Your task to perform on an android device: turn off improve location accuracy Image 0: 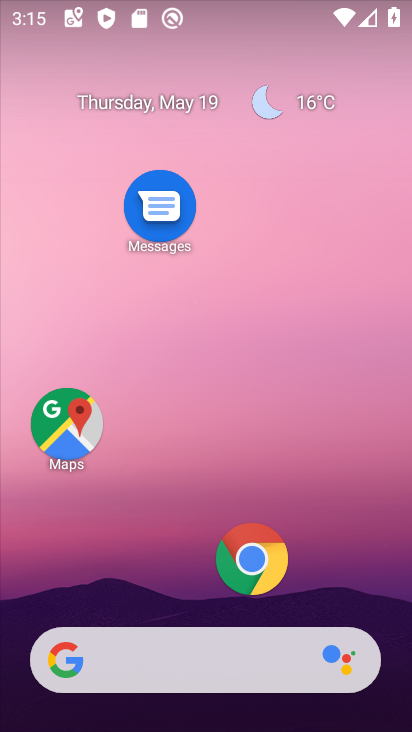
Step 0: drag from (205, 615) to (215, 250)
Your task to perform on an android device: turn off improve location accuracy Image 1: 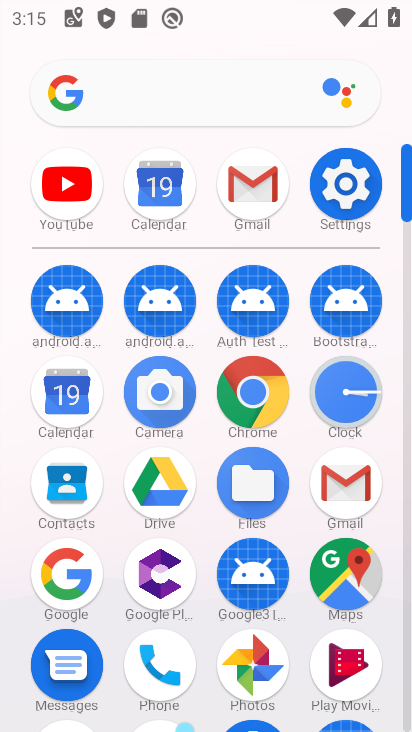
Step 1: click (322, 206)
Your task to perform on an android device: turn off improve location accuracy Image 2: 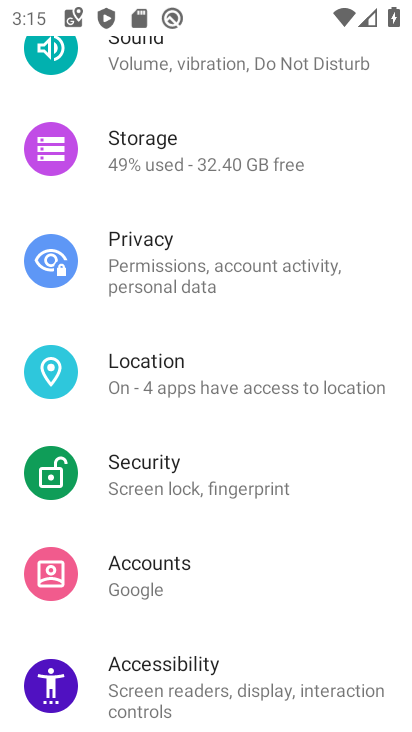
Step 2: click (195, 394)
Your task to perform on an android device: turn off improve location accuracy Image 3: 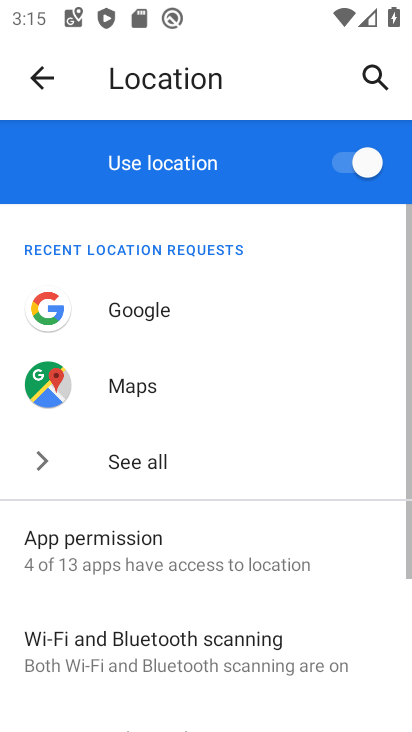
Step 3: drag from (191, 602) to (233, 393)
Your task to perform on an android device: turn off improve location accuracy Image 4: 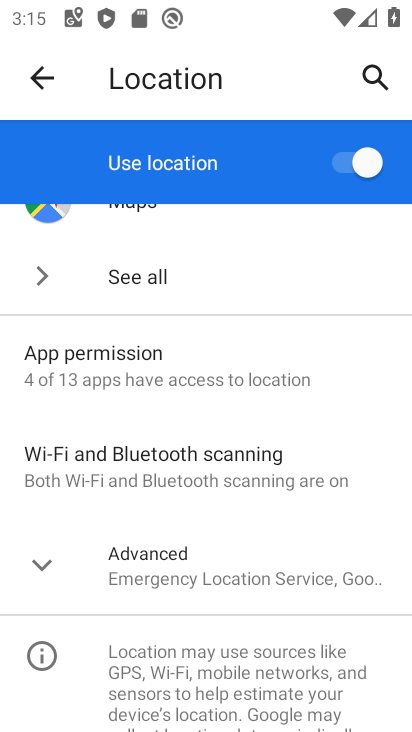
Step 4: click (158, 564)
Your task to perform on an android device: turn off improve location accuracy Image 5: 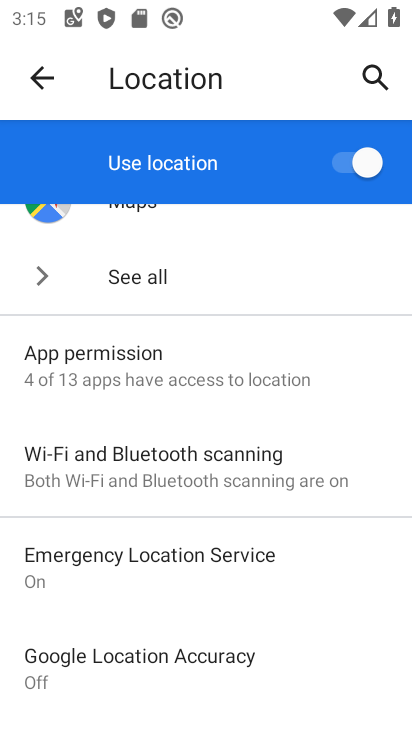
Step 5: drag from (190, 654) to (208, 434)
Your task to perform on an android device: turn off improve location accuracy Image 6: 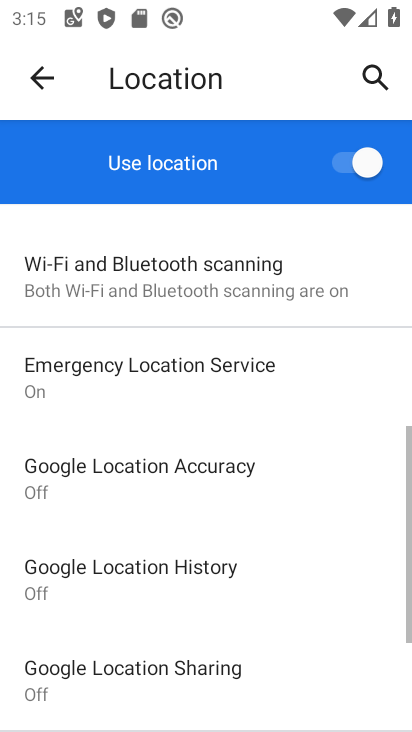
Step 6: drag from (189, 624) to (213, 453)
Your task to perform on an android device: turn off improve location accuracy Image 7: 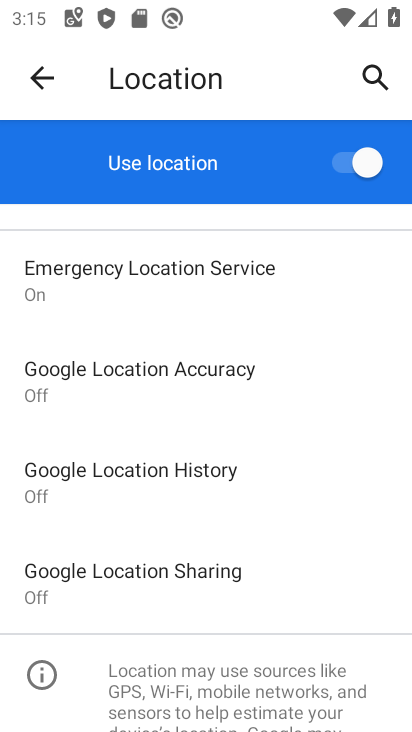
Step 7: click (188, 391)
Your task to perform on an android device: turn off improve location accuracy Image 8: 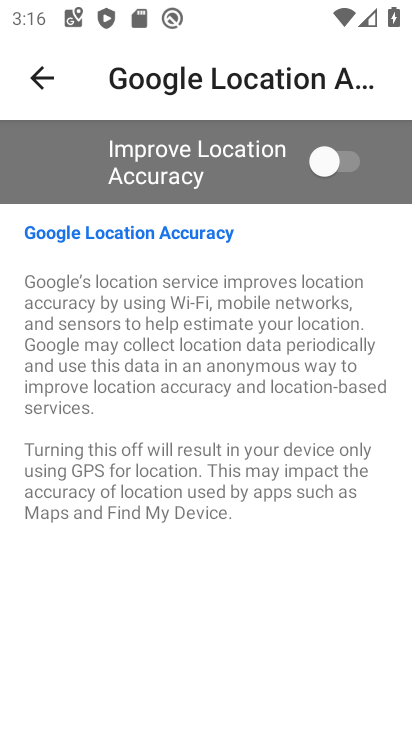
Step 8: task complete